Your task to perform on an android device: allow cookies in the chrome app Image 0: 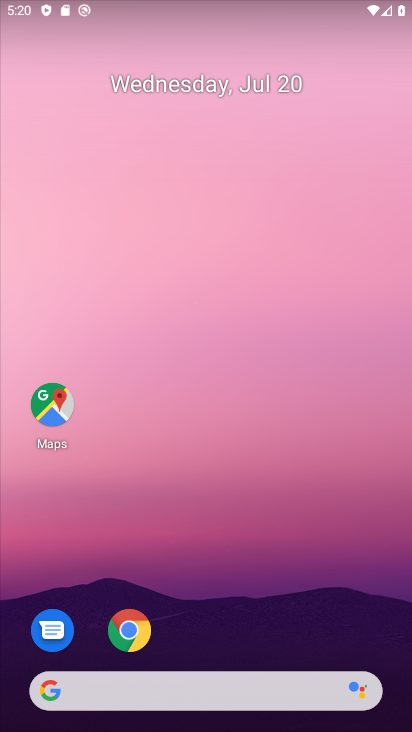
Step 0: drag from (278, 595) to (410, 329)
Your task to perform on an android device: allow cookies in the chrome app Image 1: 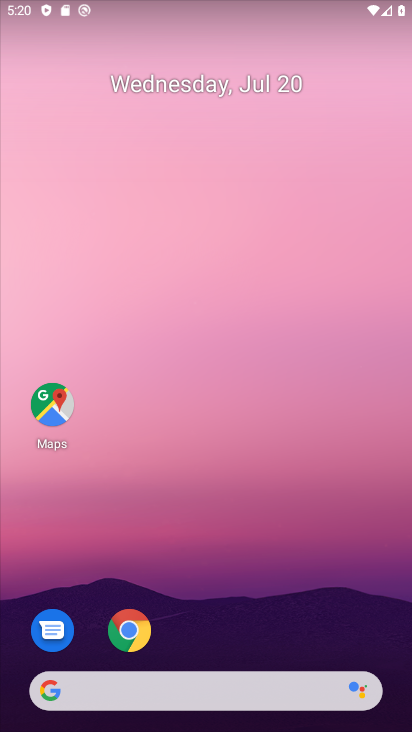
Step 1: drag from (195, 638) to (229, 47)
Your task to perform on an android device: allow cookies in the chrome app Image 2: 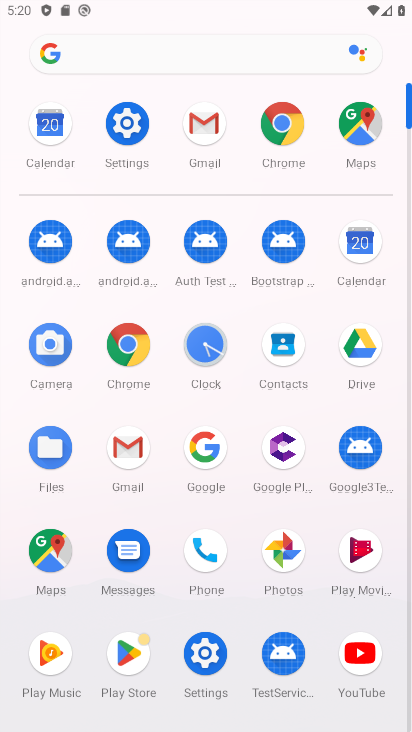
Step 2: click (124, 351)
Your task to perform on an android device: allow cookies in the chrome app Image 3: 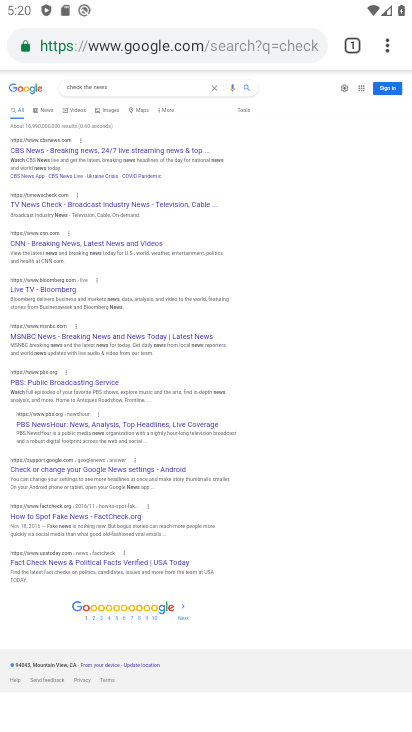
Step 3: drag from (383, 40) to (264, 552)
Your task to perform on an android device: allow cookies in the chrome app Image 4: 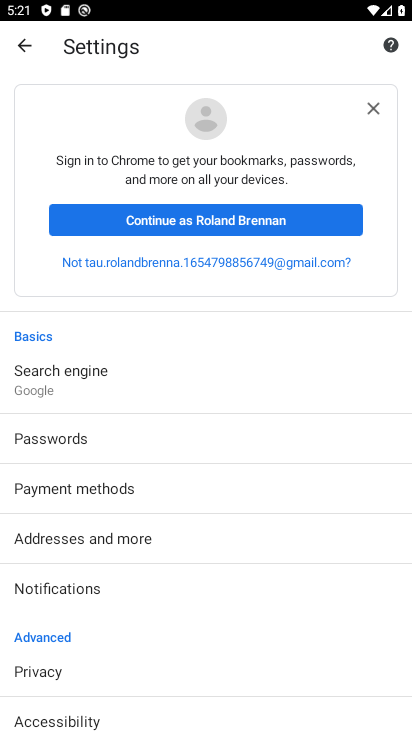
Step 4: drag from (109, 642) to (147, 208)
Your task to perform on an android device: allow cookies in the chrome app Image 5: 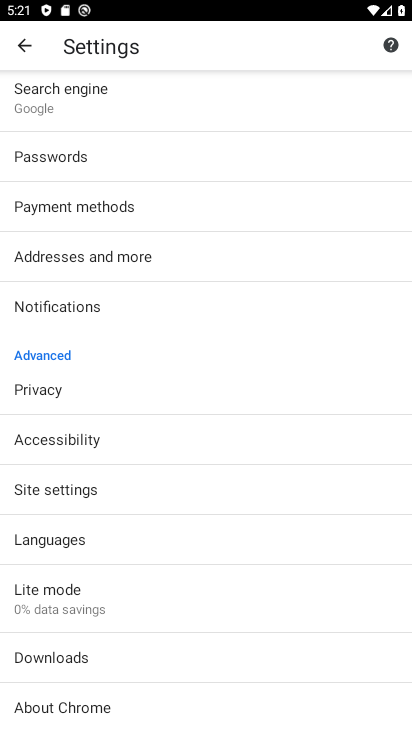
Step 5: click (88, 483)
Your task to perform on an android device: allow cookies in the chrome app Image 6: 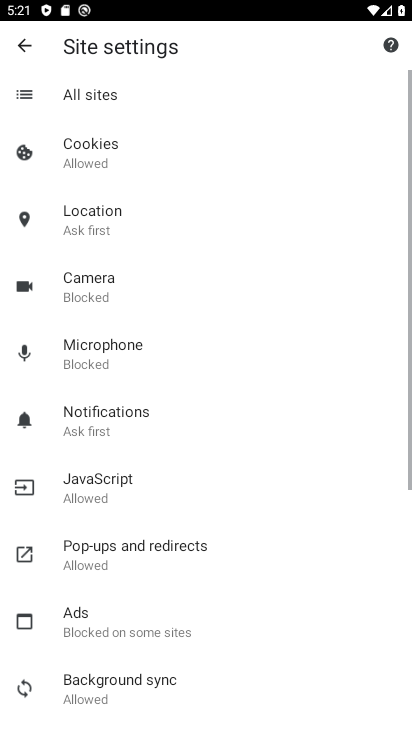
Step 6: click (124, 143)
Your task to perform on an android device: allow cookies in the chrome app Image 7: 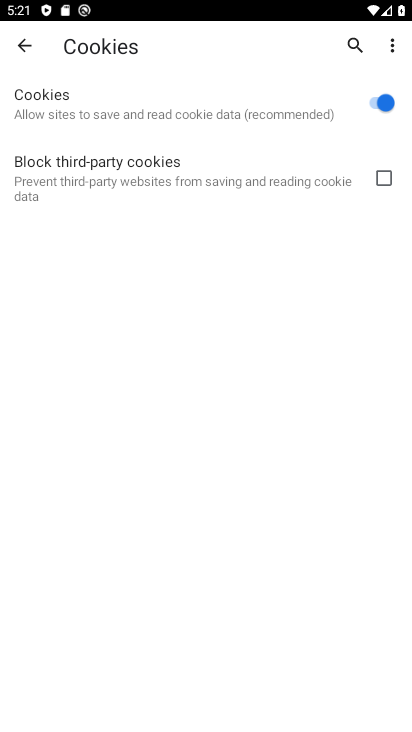
Step 7: task complete